Your task to perform on an android device: What is the recent news? Image 0: 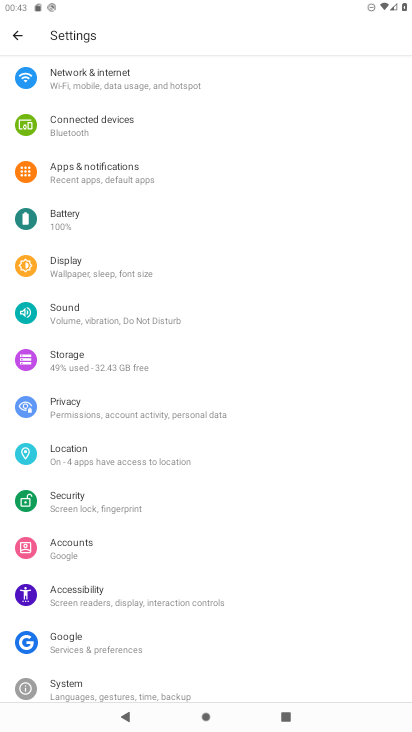
Step 0: press home button
Your task to perform on an android device: What is the recent news? Image 1: 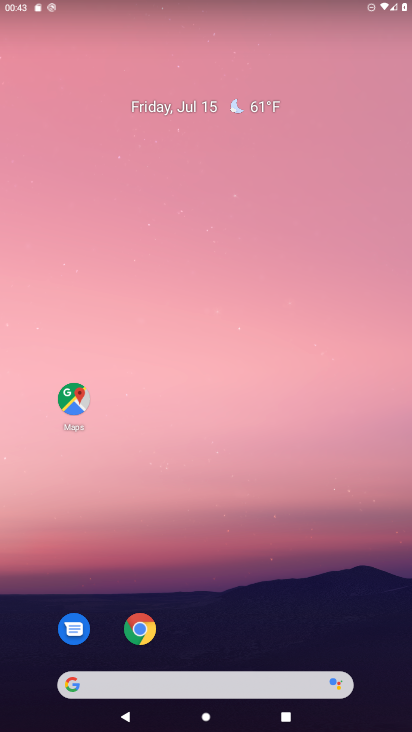
Step 1: drag from (190, 630) to (219, 45)
Your task to perform on an android device: What is the recent news? Image 2: 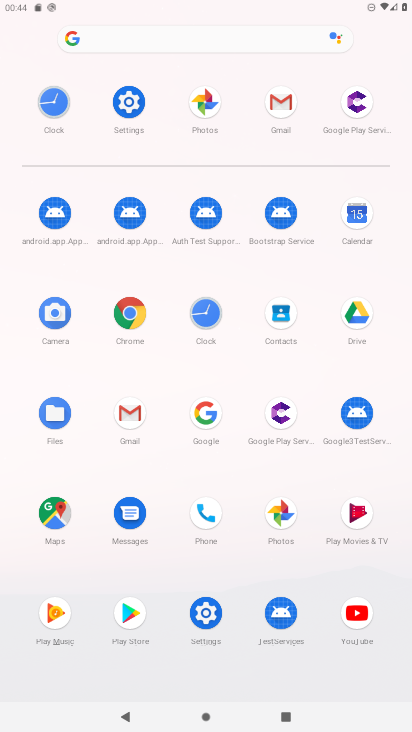
Step 2: click (209, 414)
Your task to perform on an android device: What is the recent news? Image 3: 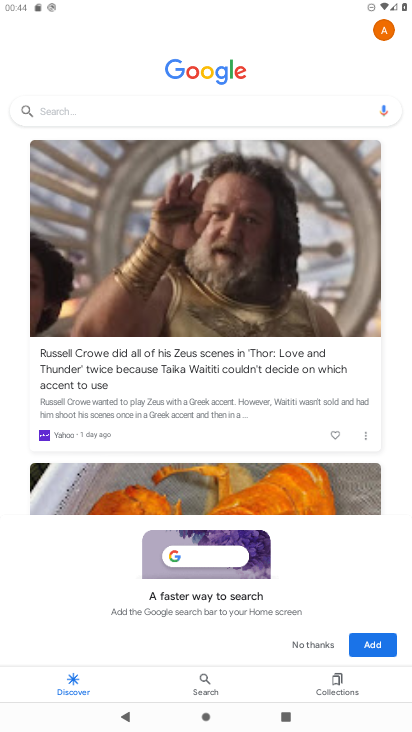
Step 3: task complete